Your task to perform on an android device: Open the web browser Image 0: 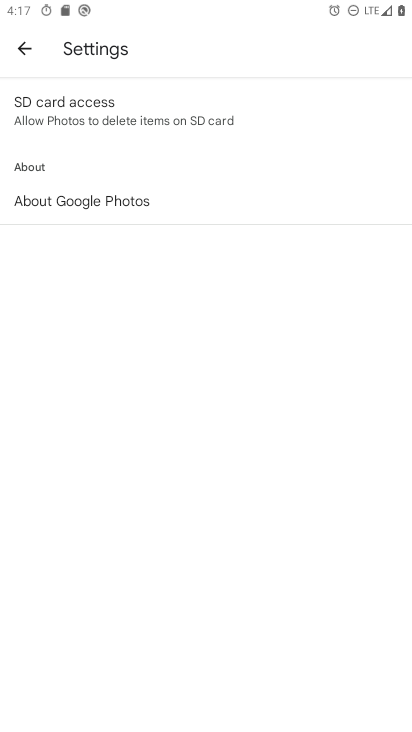
Step 0: press home button
Your task to perform on an android device: Open the web browser Image 1: 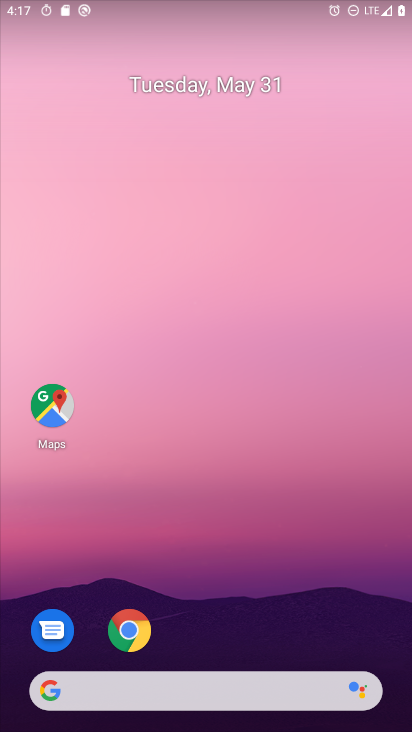
Step 1: drag from (246, 716) to (336, 68)
Your task to perform on an android device: Open the web browser Image 2: 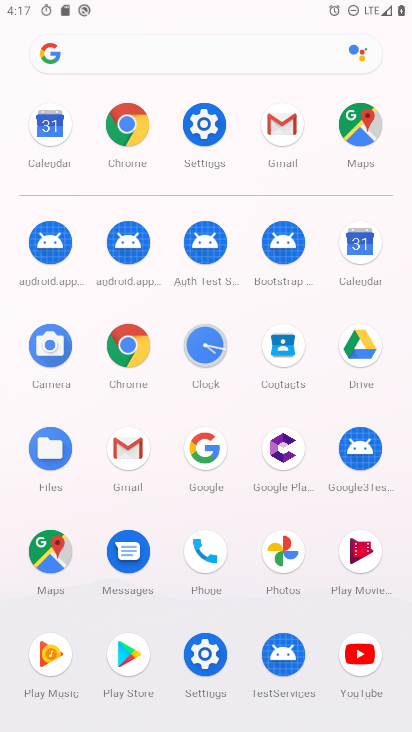
Step 2: click (114, 364)
Your task to perform on an android device: Open the web browser Image 3: 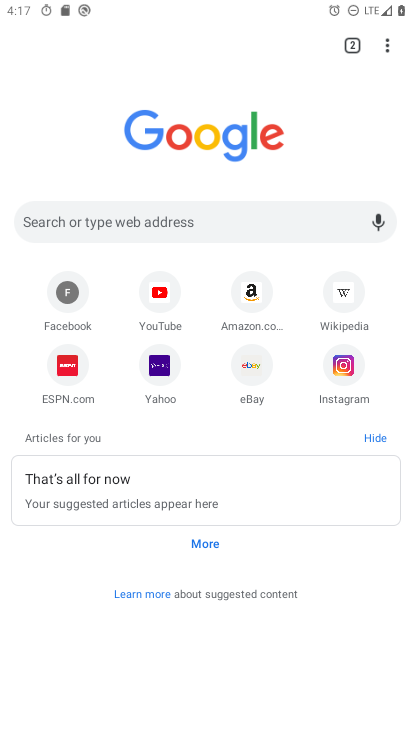
Step 3: task complete